Your task to perform on an android device: Turn on the flashlight Image 0: 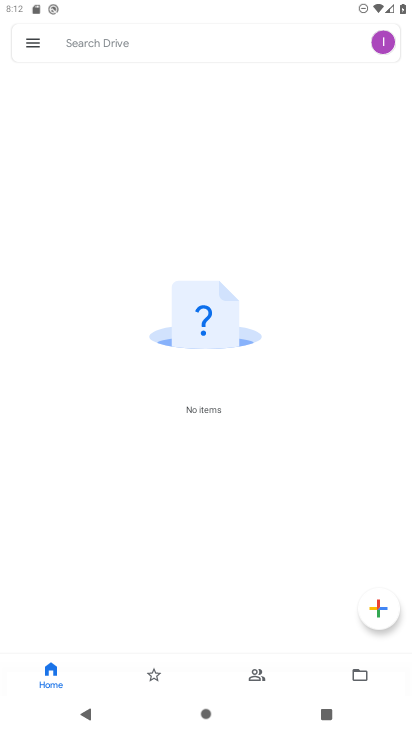
Step 0: press home button
Your task to perform on an android device: Turn on the flashlight Image 1: 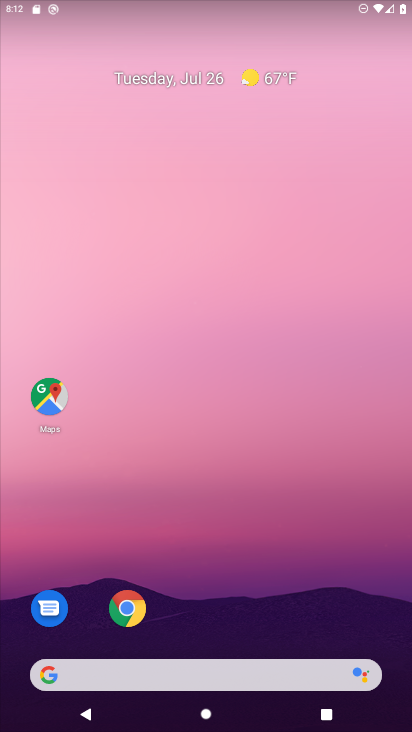
Step 1: drag from (223, 646) to (255, 30)
Your task to perform on an android device: Turn on the flashlight Image 2: 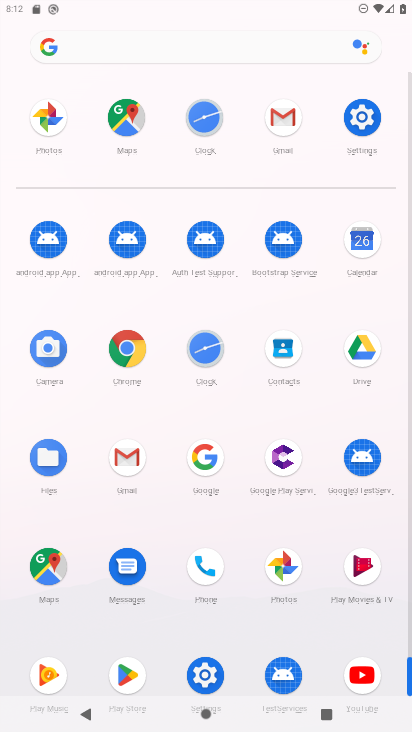
Step 2: drag from (224, 631) to (224, 538)
Your task to perform on an android device: Turn on the flashlight Image 3: 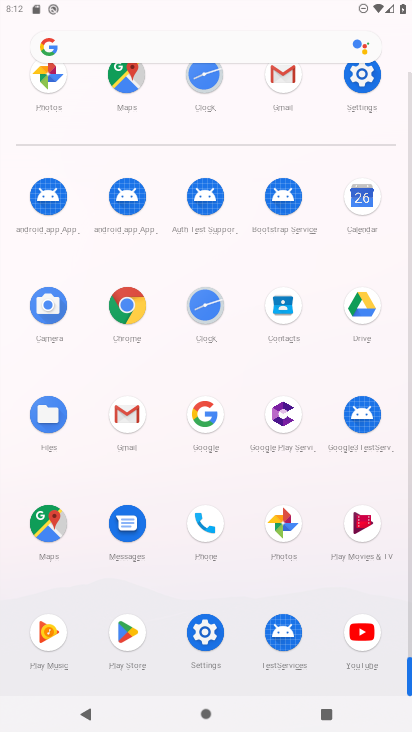
Step 3: click (207, 644)
Your task to perform on an android device: Turn on the flashlight Image 4: 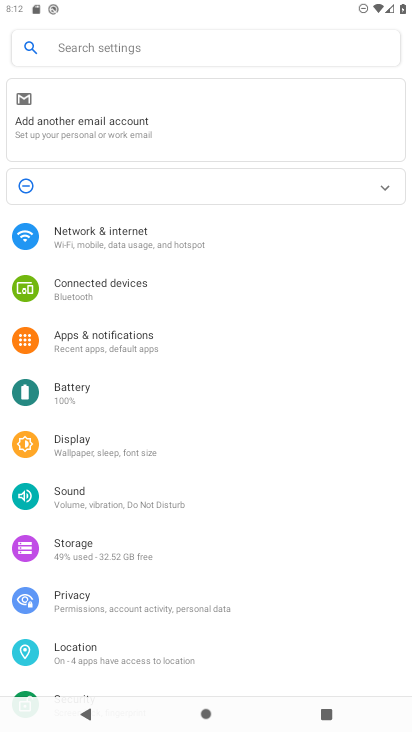
Step 4: click (155, 48)
Your task to perform on an android device: Turn on the flashlight Image 5: 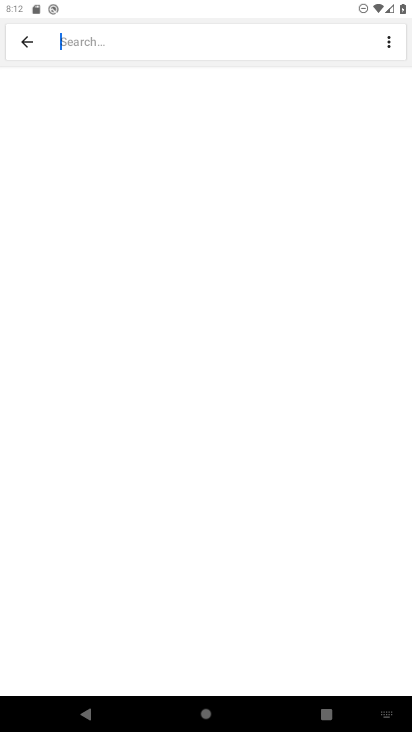
Step 5: type "flashlight"
Your task to perform on an android device: Turn on the flashlight Image 6: 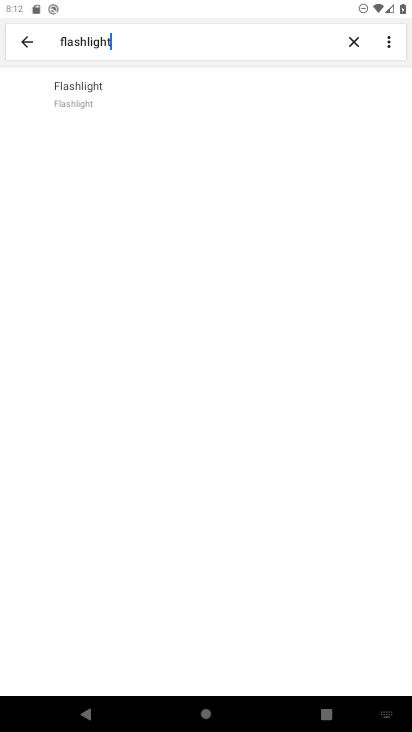
Step 6: click (82, 83)
Your task to perform on an android device: Turn on the flashlight Image 7: 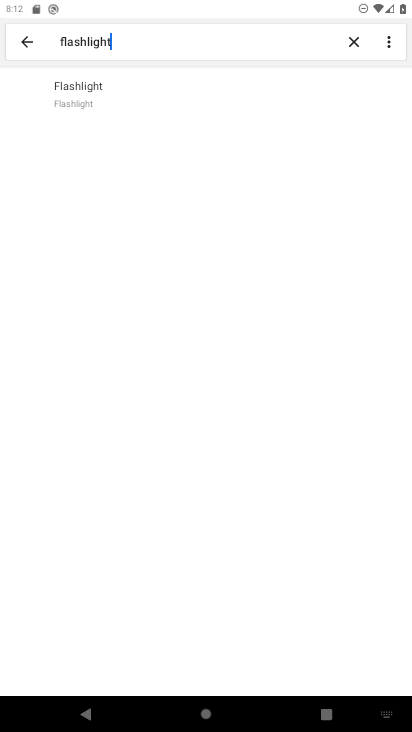
Step 7: click (98, 87)
Your task to perform on an android device: Turn on the flashlight Image 8: 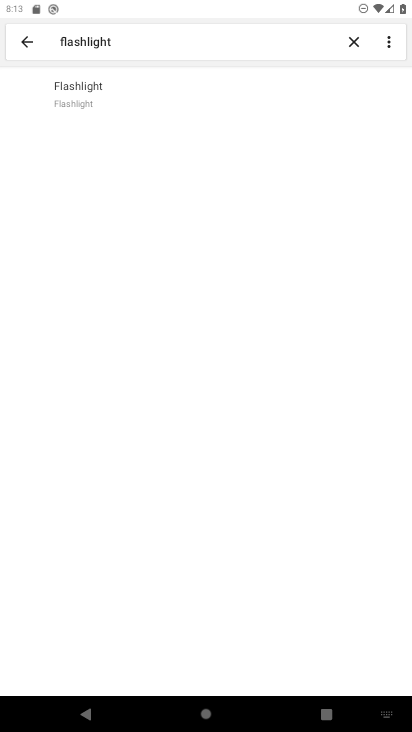
Step 8: task complete